Your task to perform on an android device: turn on the 12-hour format for clock Image 0: 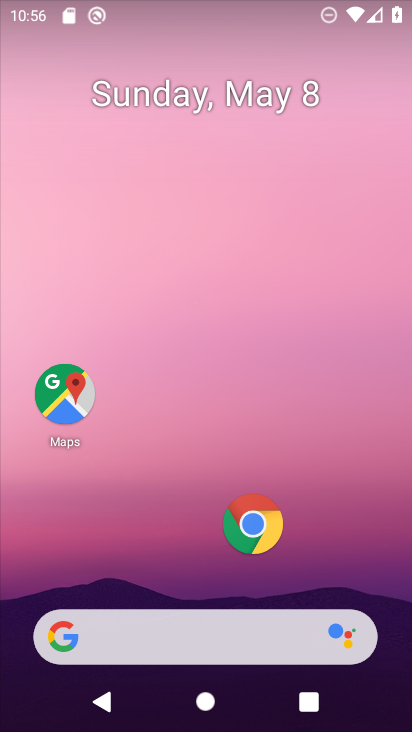
Step 0: drag from (199, 533) to (222, 30)
Your task to perform on an android device: turn on the 12-hour format for clock Image 1: 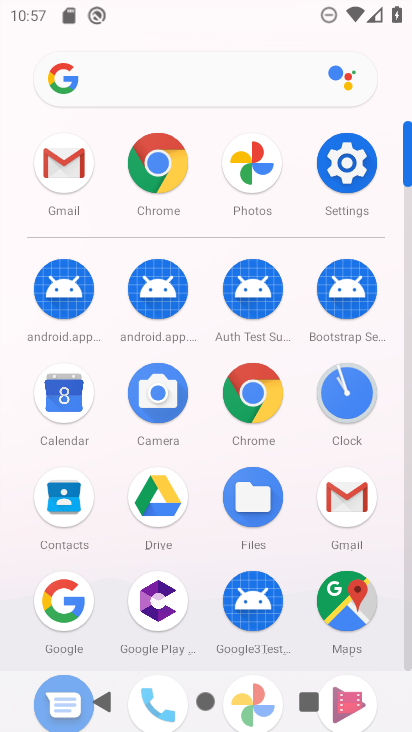
Step 1: click (340, 392)
Your task to perform on an android device: turn on the 12-hour format for clock Image 2: 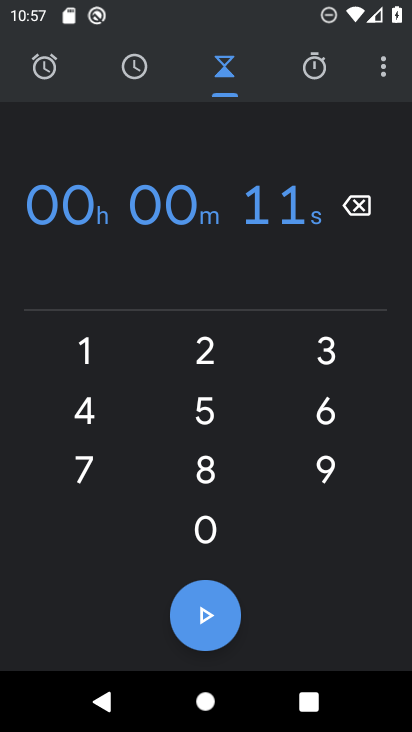
Step 2: click (379, 74)
Your task to perform on an android device: turn on the 12-hour format for clock Image 3: 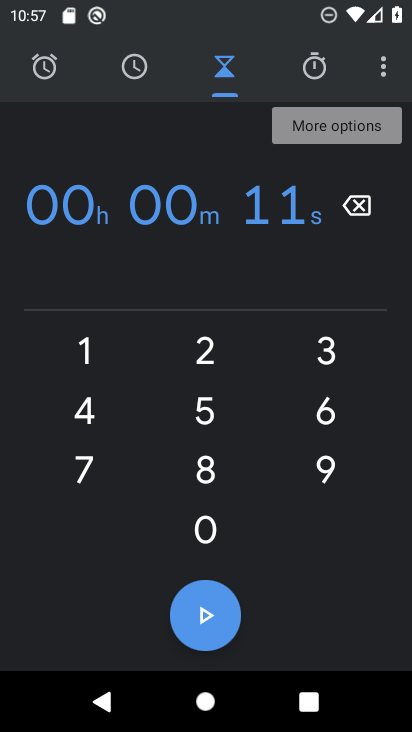
Step 3: click (381, 70)
Your task to perform on an android device: turn on the 12-hour format for clock Image 4: 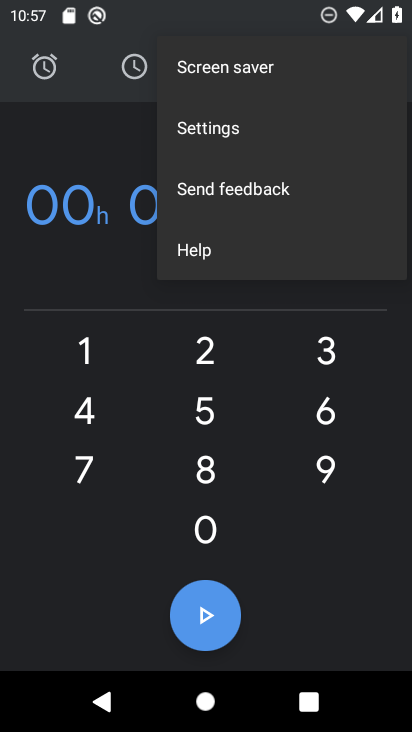
Step 4: click (309, 122)
Your task to perform on an android device: turn on the 12-hour format for clock Image 5: 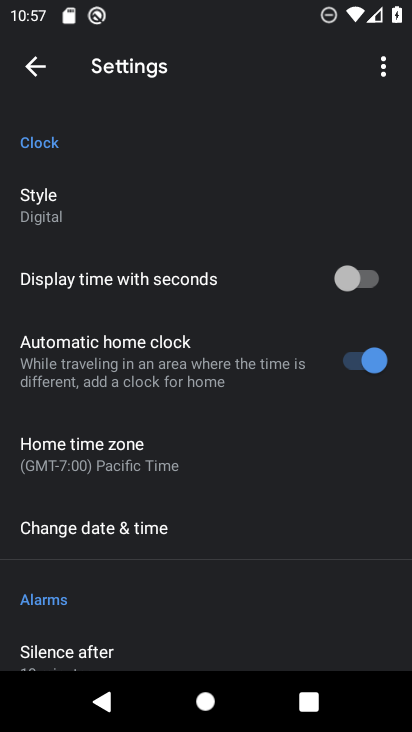
Step 5: click (223, 530)
Your task to perform on an android device: turn on the 12-hour format for clock Image 6: 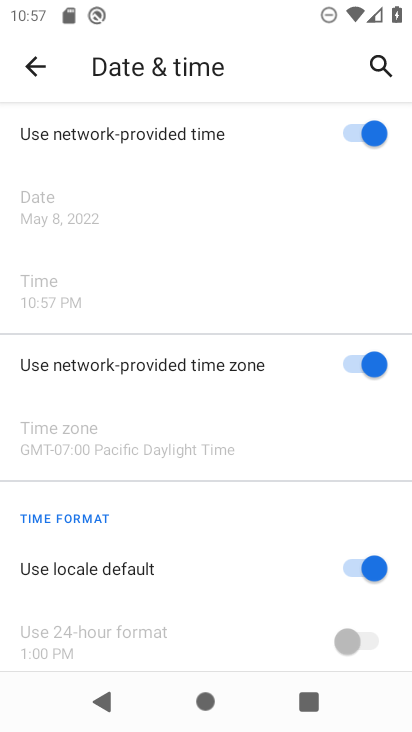
Step 6: task complete